Your task to perform on an android device: Go to Yahoo.com Image 0: 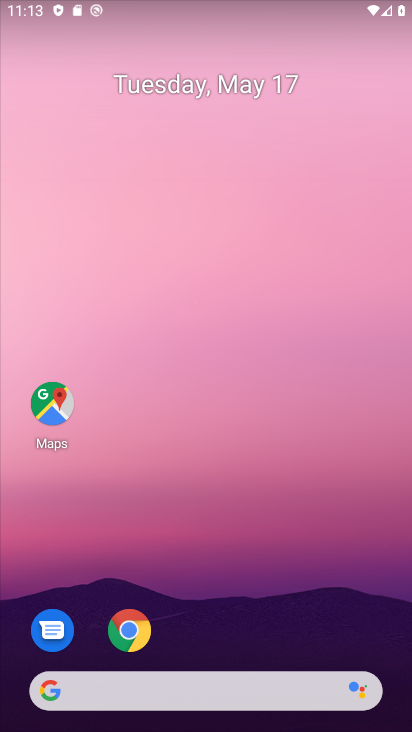
Step 0: click (145, 613)
Your task to perform on an android device: Go to Yahoo.com Image 1: 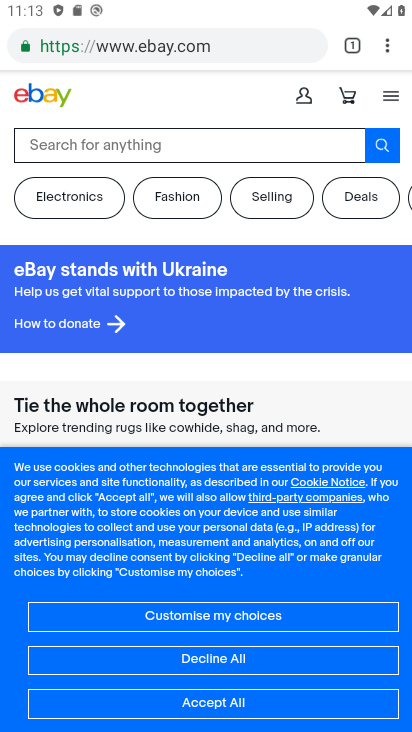
Step 1: click (354, 44)
Your task to perform on an android device: Go to Yahoo.com Image 2: 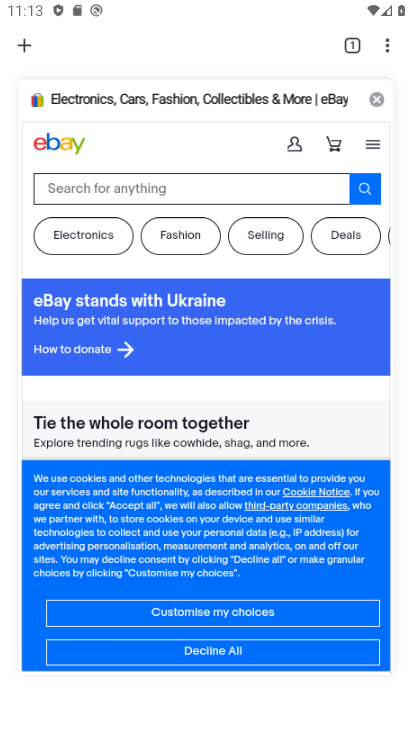
Step 2: click (31, 50)
Your task to perform on an android device: Go to Yahoo.com Image 3: 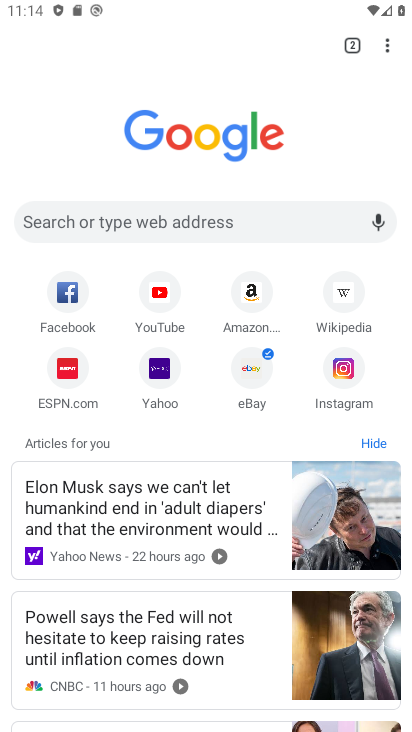
Step 3: click (161, 357)
Your task to perform on an android device: Go to Yahoo.com Image 4: 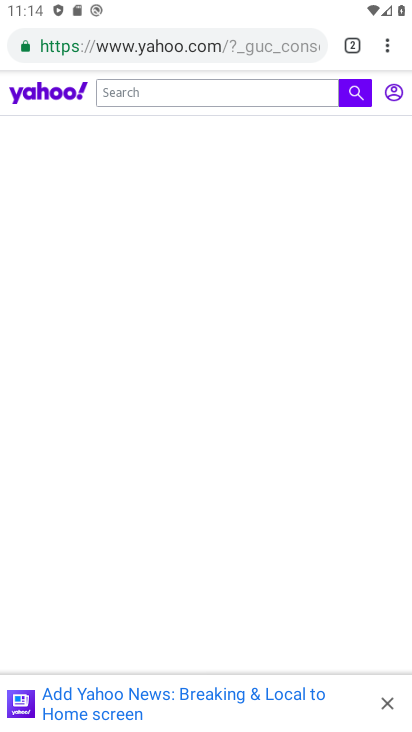
Step 4: task complete